Your task to perform on an android device: Do I have any events today? Image 0: 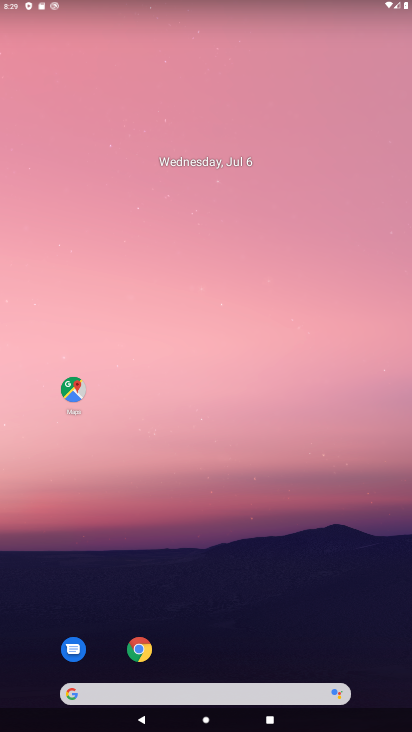
Step 0: drag from (224, 667) to (290, 27)
Your task to perform on an android device: Do I have any events today? Image 1: 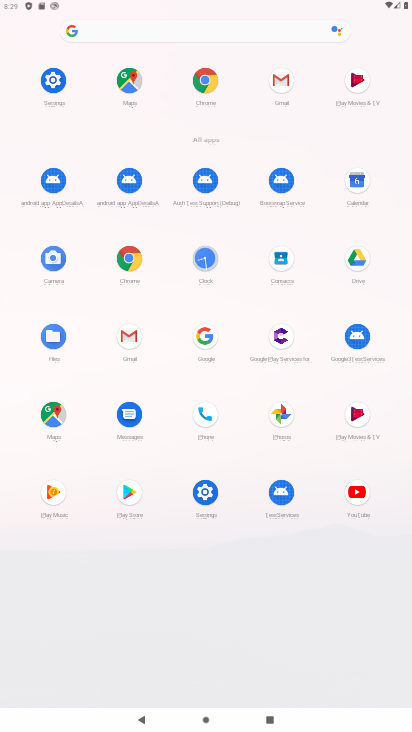
Step 1: click (139, 266)
Your task to perform on an android device: Do I have any events today? Image 2: 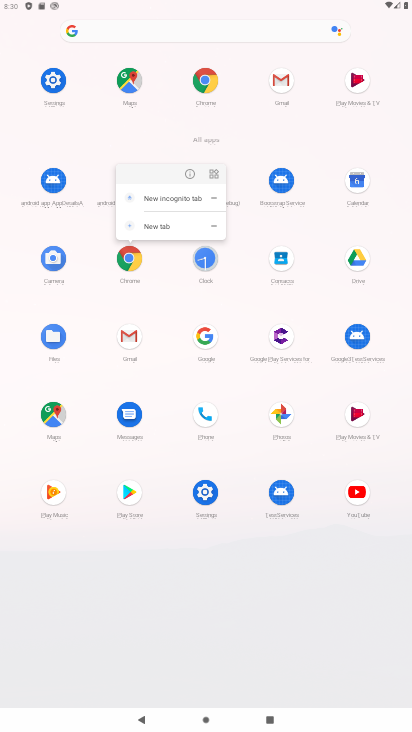
Step 2: click (138, 266)
Your task to perform on an android device: Do I have any events today? Image 3: 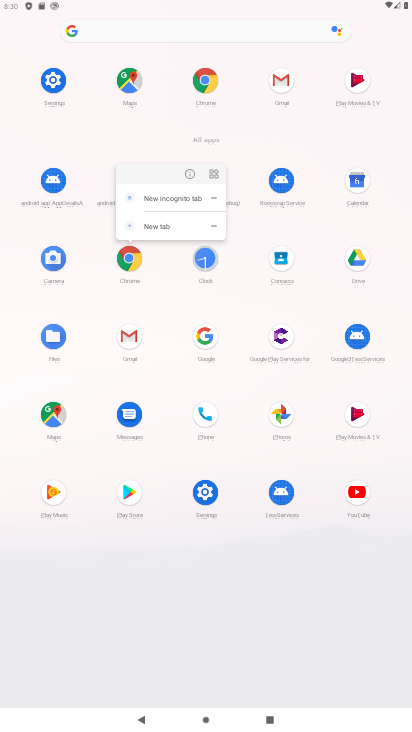
Step 3: click (137, 266)
Your task to perform on an android device: Do I have any events today? Image 4: 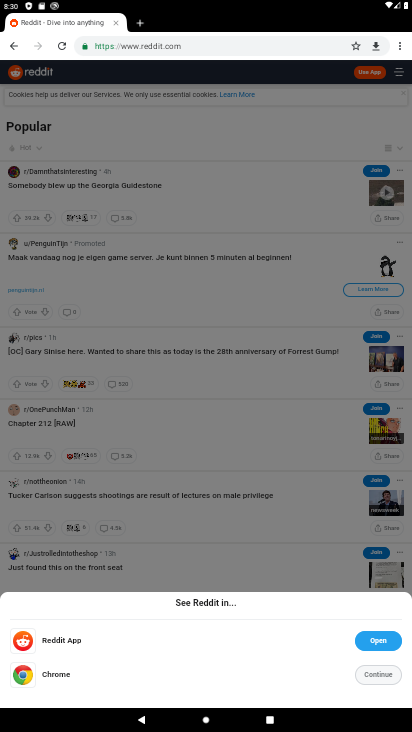
Step 4: press home button
Your task to perform on an android device: Do I have any events today? Image 5: 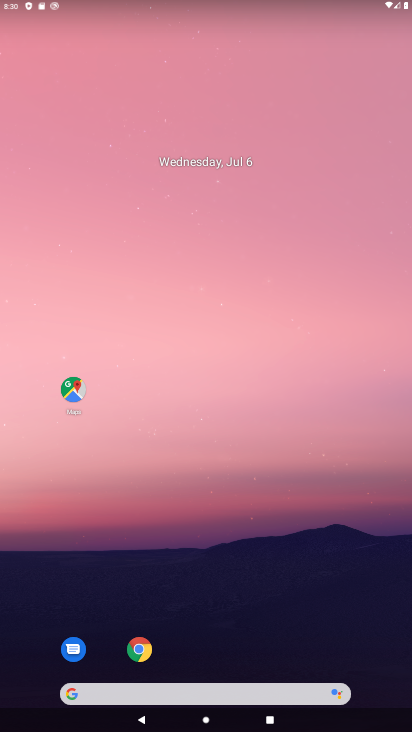
Step 5: drag from (244, 639) to (298, 21)
Your task to perform on an android device: Do I have any events today? Image 6: 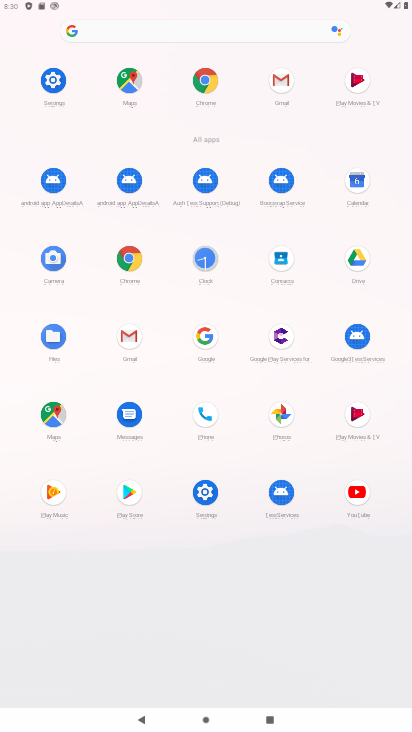
Step 6: click (359, 189)
Your task to perform on an android device: Do I have any events today? Image 7: 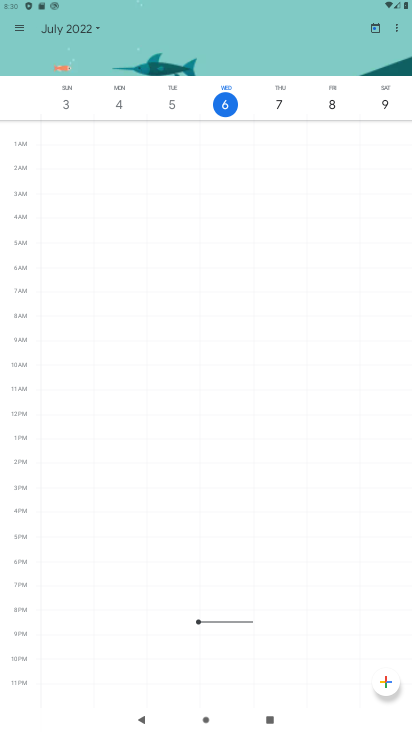
Step 7: click (21, 32)
Your task to perform on an android device: Do I have any events today? Image 8: 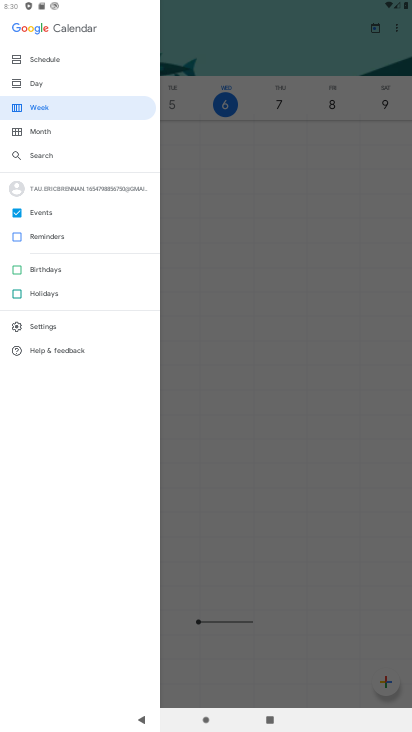
Step 8: click (50, 84)
Your task to perform on an android device: Do I have any events today? Image 9: 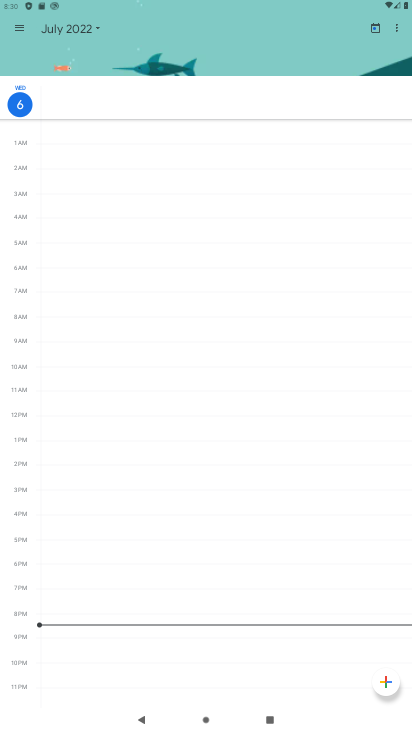
Step 9: task complete